Your task to perform on an android device: refresh tabs in the chrome app Image 0: 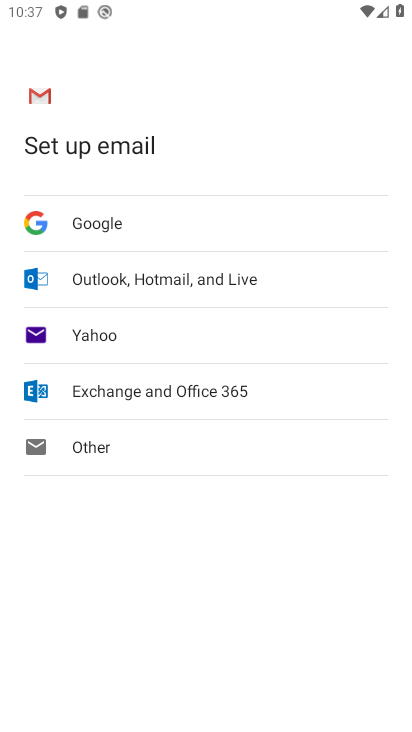
Step 0: press home button
Your task to perform on an android device: refresh tabs in the chrome app Image 1: 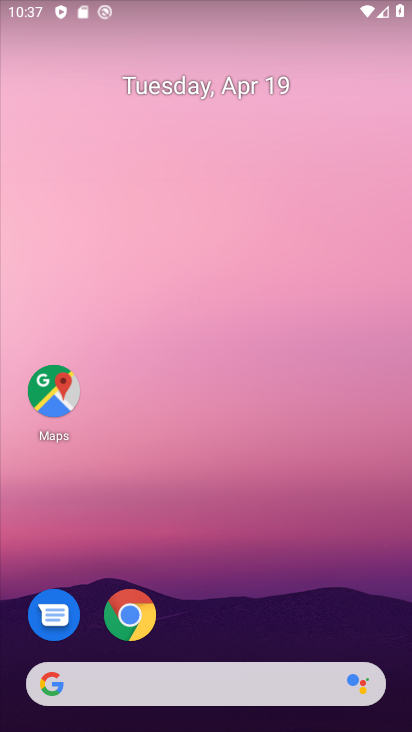
Step 1: click (141, 615)
Your task to perform on an android device: refresh tabs in the chrome app Image 2: 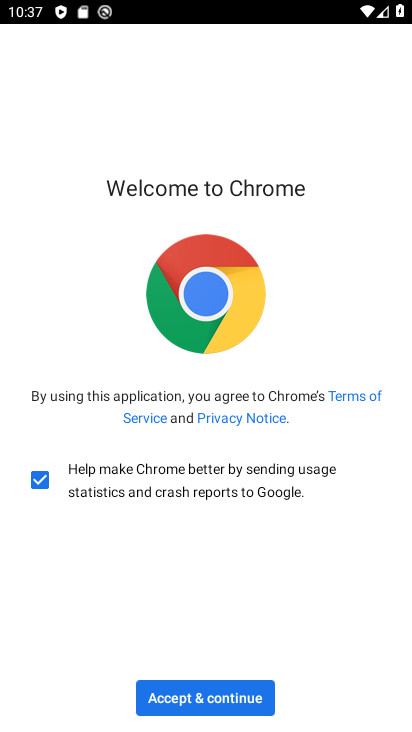
Step 2: click (215, 700)
Your task to perform on an android device: refresh tabs in the chrome app Image 3: 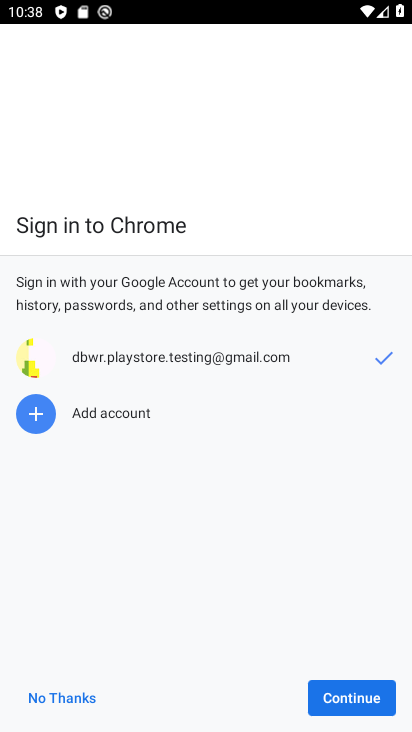
Step 3: click (329, 680)
Your task to perform on an android device: refresh tabs in the chrome app Image 4: 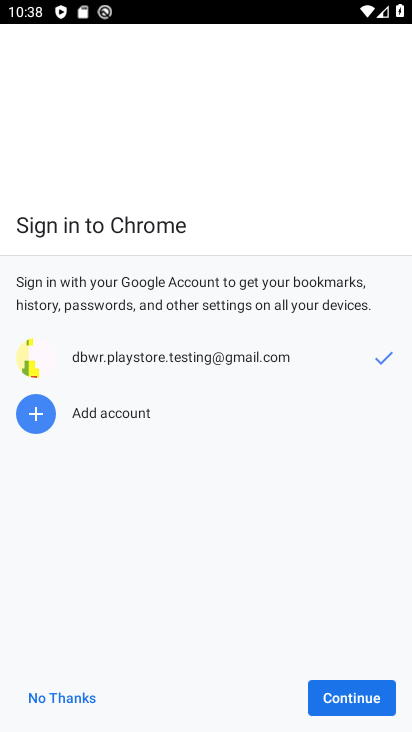
Step 4: click (340, 689)
Your task to perform on an android device: refresh tabs in the chrome app Image 5: 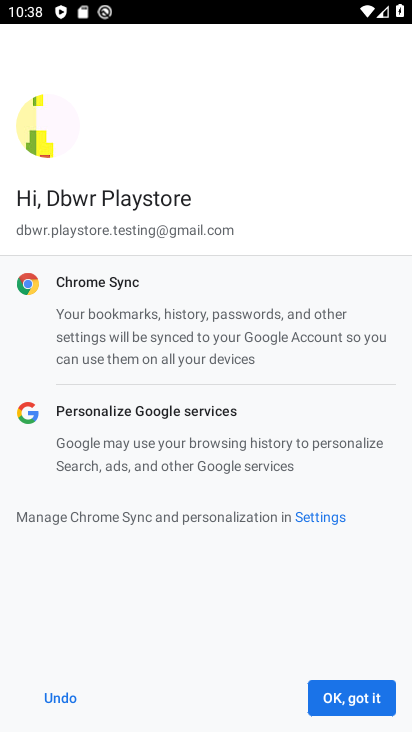
Step 5: click (340, 689)
Your task to perform on an android device: refresh tabs in the chrome app Image 6: 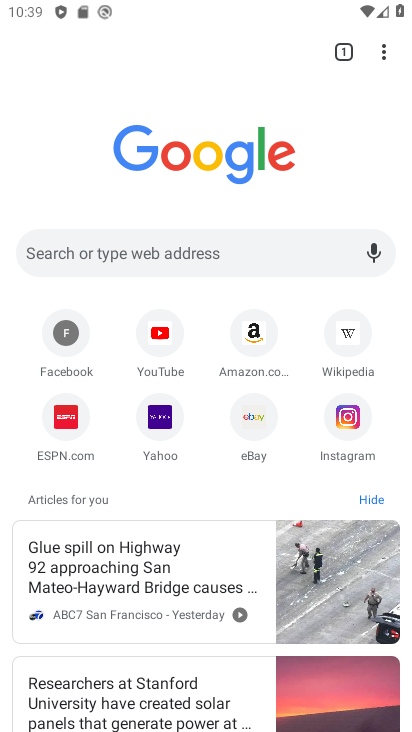
Step 6: click (382, 52)
Your task to perform on an android device: refresh tabs in the chrome app Image 7: 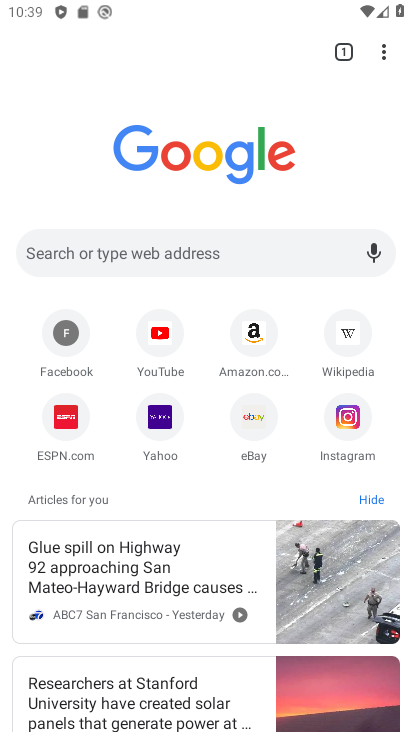
Step 7: task complete